Your task to perform on an android device: open chrome and create a bookmark for the current page Image 0: 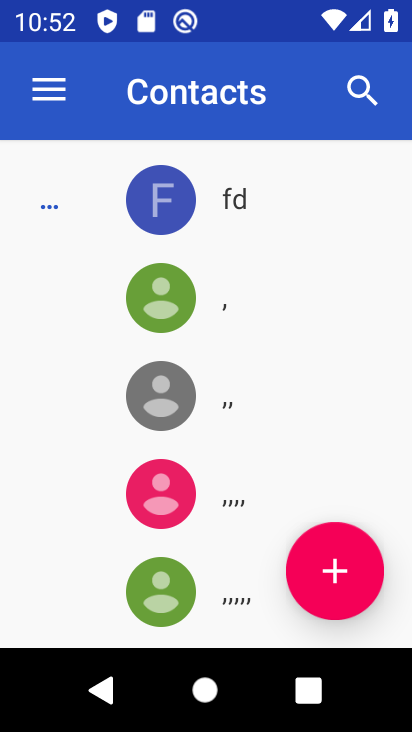
Step 0: press home button
Your task to perform on an android device: open chrome and create a bookmark for the current page Image 1: 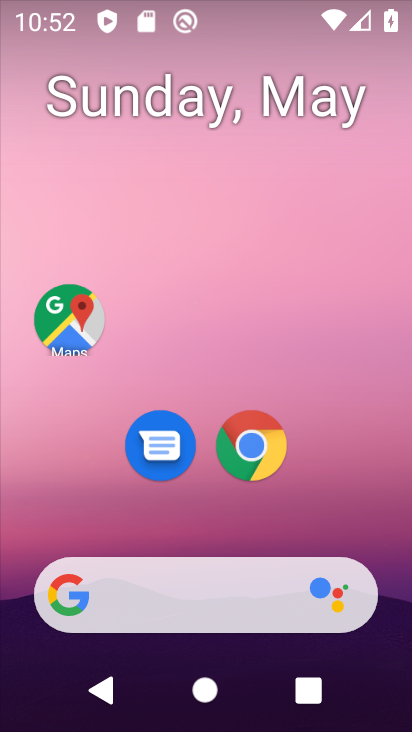
Step 1: click (252, 433)
Your task to perform on an android device: open chrome and create a bookmark for the current page Image 2: 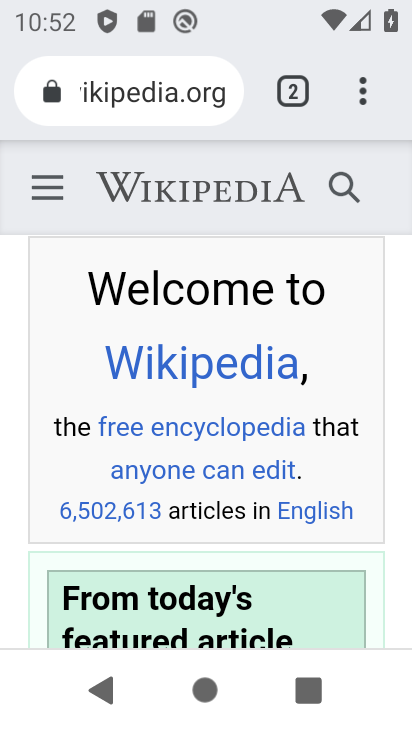
Step 2: click (357, 88)
Your task to perform on an android device: open chrome and create a bookmark for the current page Image 3: 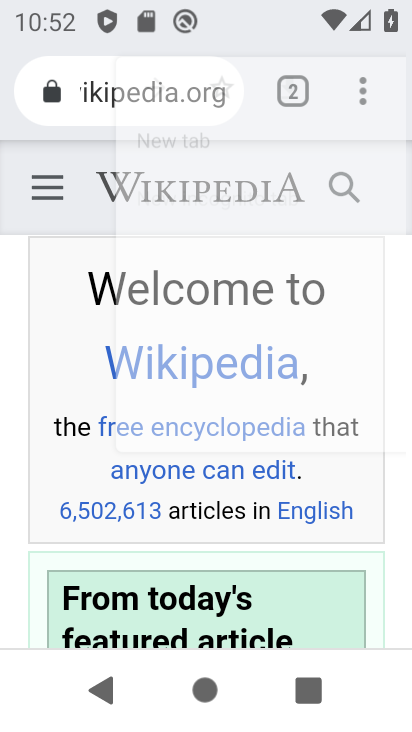
Step 3: drag from (357, 89) to (312, 123)
Your task to perform on an android device: open chrome and create a bookmark for the current page Image 4: 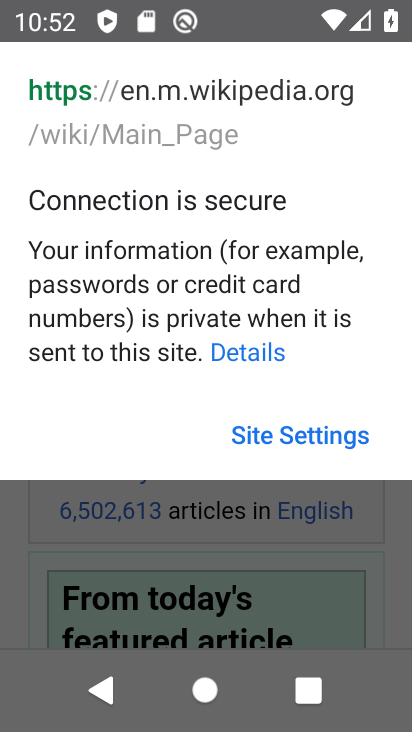
Step 4: click (16, 507)
Your task to perform on an android device: open chrome and create a bookmark for the current page Image 5: 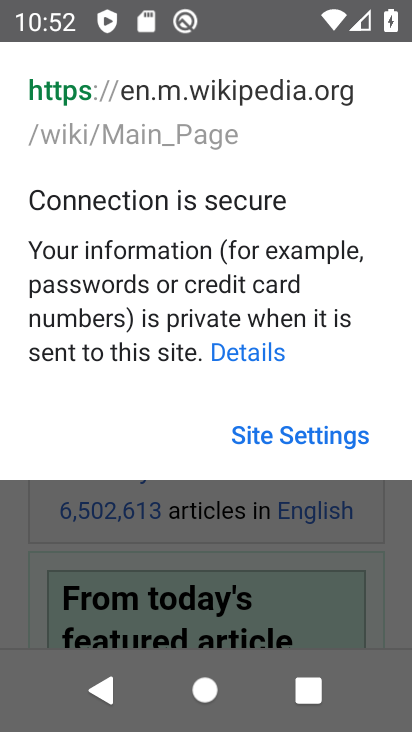
Step 5: click (396, 522)
Your task to perform on an android device: open chrome and create a bookmark for the current page Image 6: 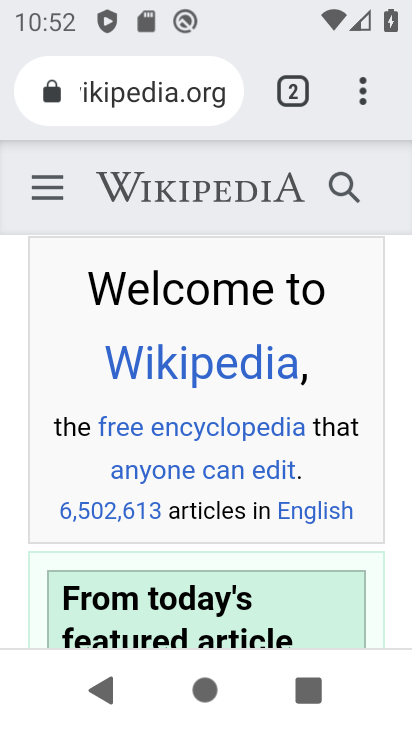
Step 6: task complete